Your task to perform on an android device: Open the web browser Image 0: 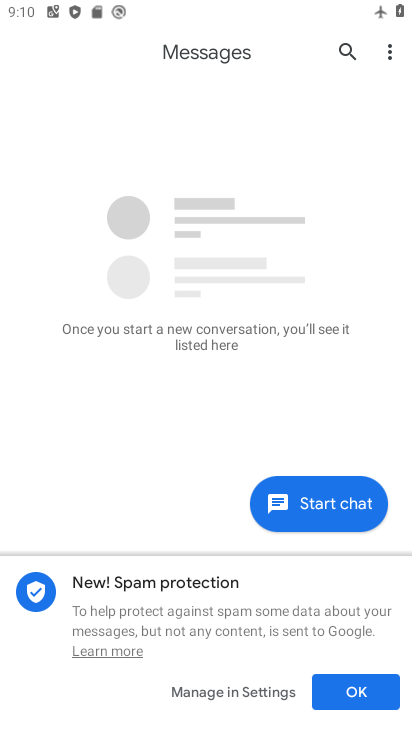
Step 0: press home button
Your task to perform on an android device: Open the web browser Image 1: 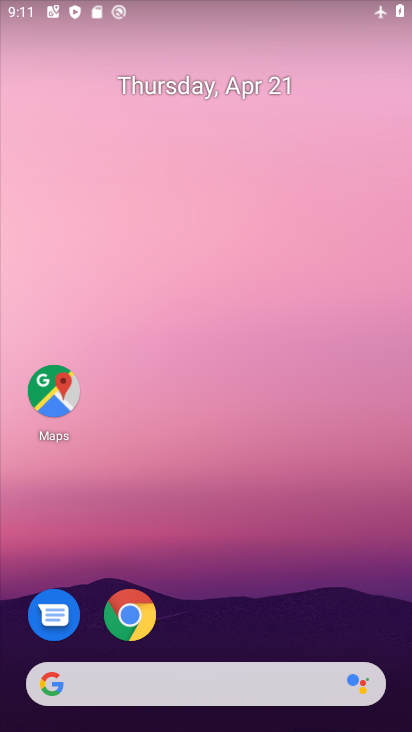
Step 1: click (127, 616)
Your task to perform on an android device: Open the web browser Image 2: 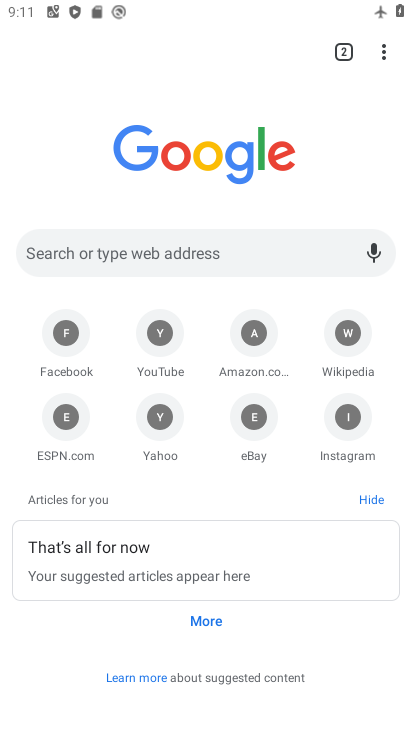
Step 2: task complete